Your task to perform on an android device: Show me popular games on the Play Store Image 0: 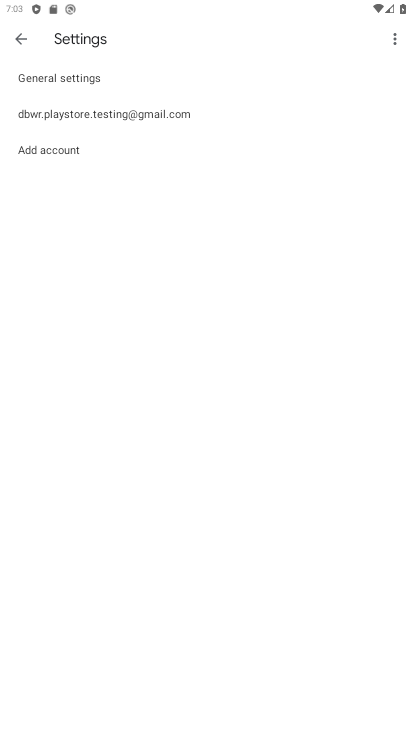
Step 0: press home button
Your task to perform on an android device: Show me popular games on the Play Store Image 1: 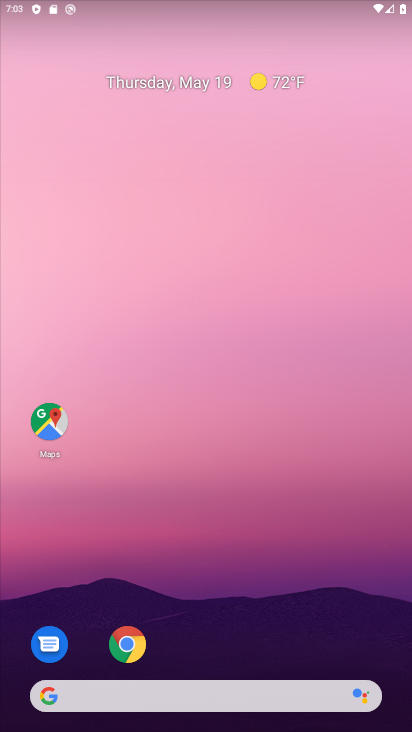
Step 1: drag from (314, 622) to (327, 16)
Your task to perform on an android device: Show me popular games on the Play Store Image 2: 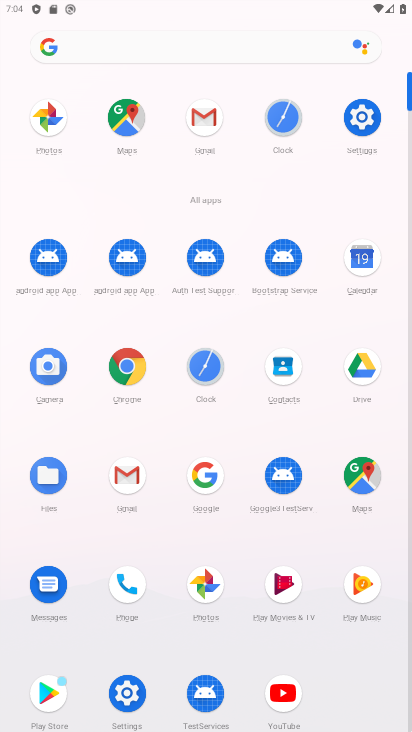
Step 2: click (35, 695)
Your task to perform on an android device: Show me popular games on the Play Store Image 3: 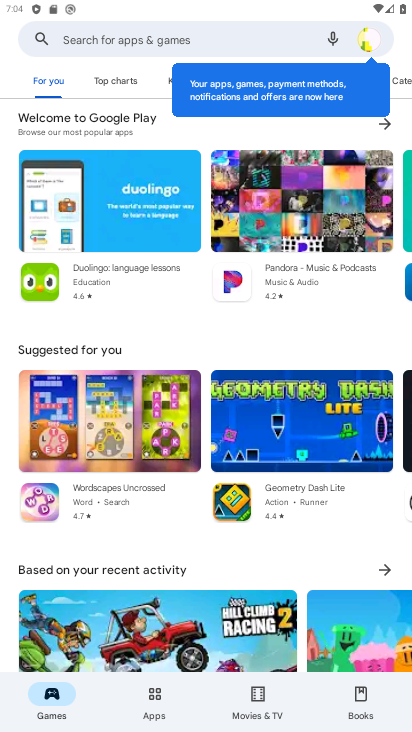
Step 3: click (130, 84)
Your task to perform on an android device: Show me popular games on the Play Store Image 4: 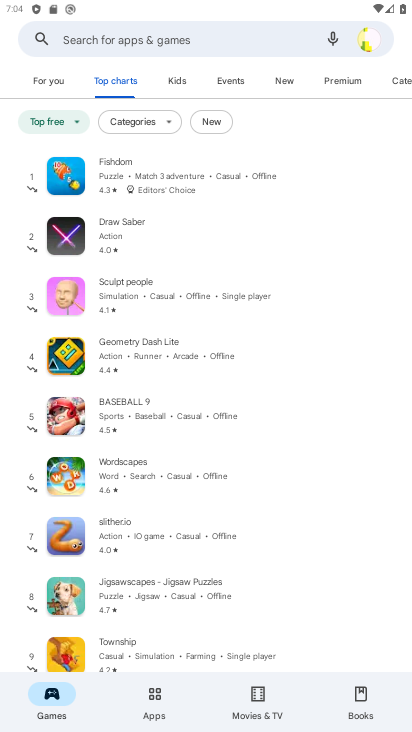
Step 4: task complete